Your task to perform on an android device: turn off wifi Image 0: 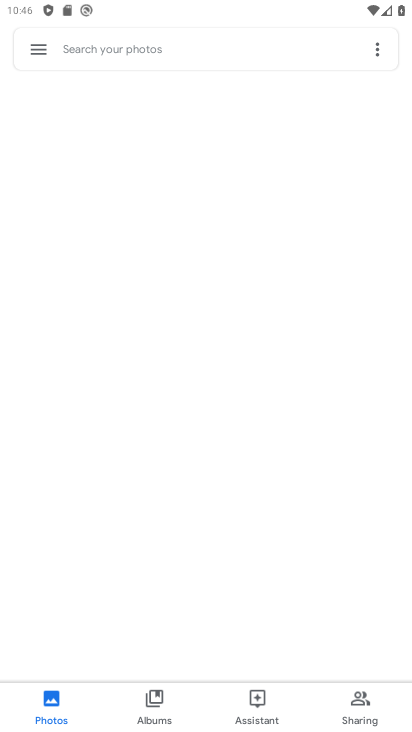
Step 0: press home button
Your task to perform on an android device: turn off wifi Image 1: 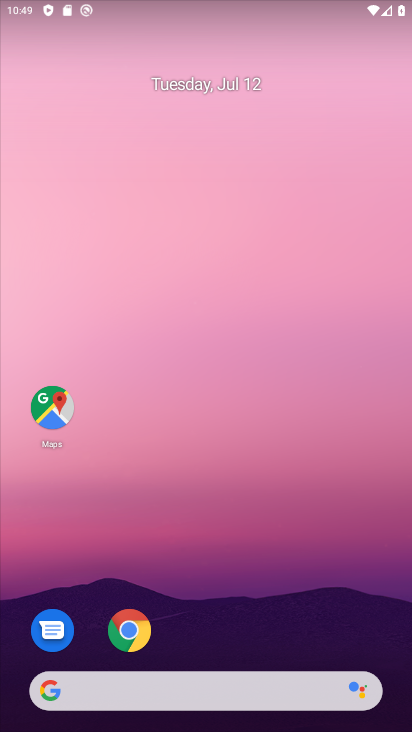
Step 1: drag from (138, 7) to (171, 456)
Your task to perform on an android device: turn off wifi Image 2: 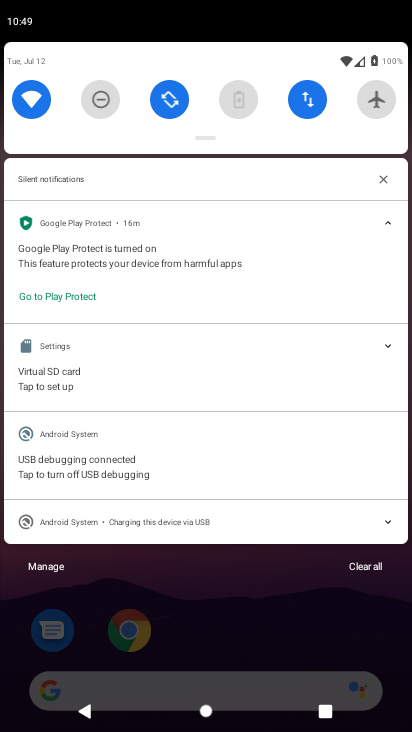
Step 2: click (25, 108)
Your task to perform on an android device: turn off wifi Image 3: 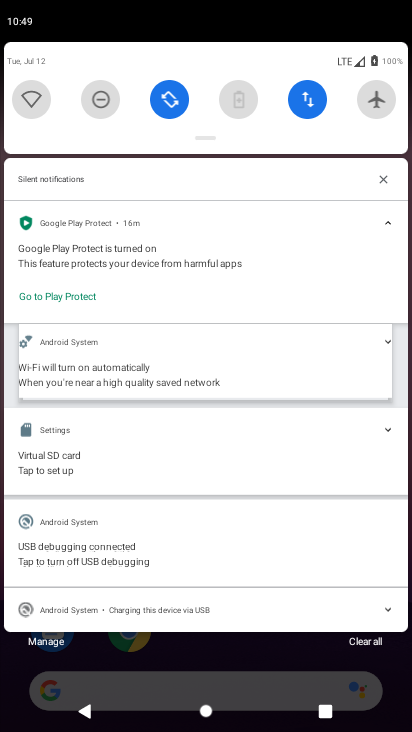
Step 3: task complete